Your task to perform on an android device: refresh tabs in the chrome app Image 0: 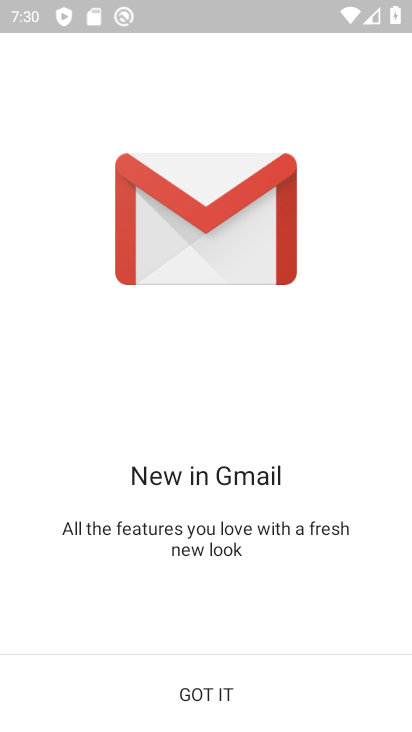
Step 0: click (233, 691)
Your task to perform on an android device: refresh tabs in the chrome app Image 1: 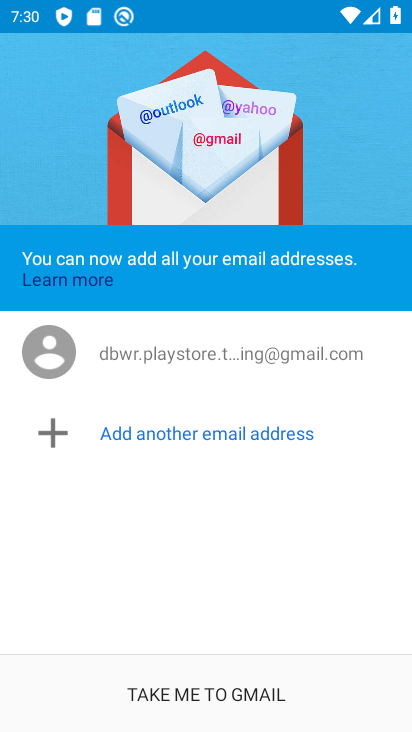
Step 1: press home button
Your task to perform on an android device: refresh tabs in the chrome app Image 2: 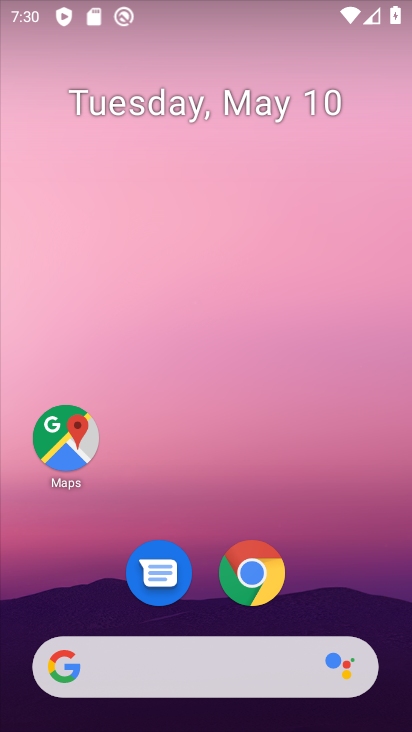
Step 2: drag from (377, 597) to (336, 153)
Your task to perform on an android device: refresh tabs in the chrome app Image 3: 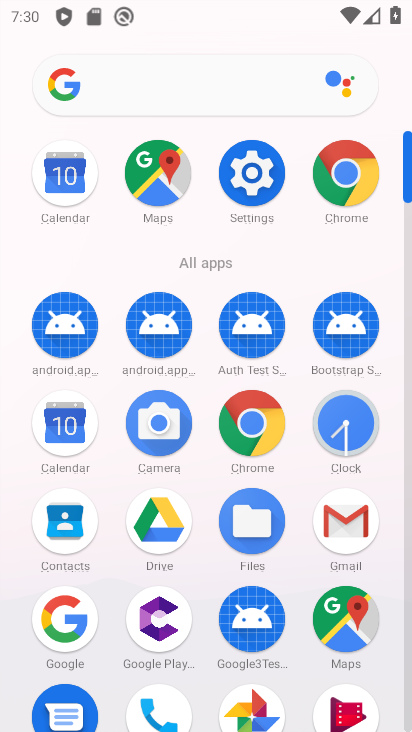
Step 3: click (248, 430)
Your task to perform on an android device: refresh tabs in the chrome app Image 4: 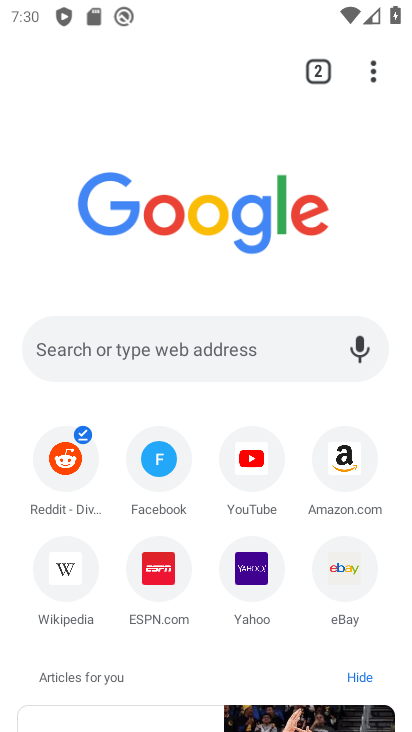
Step 4: click (378, 73)
Your task to perform on an android device: refresh tabs in the chrome app Image 5: 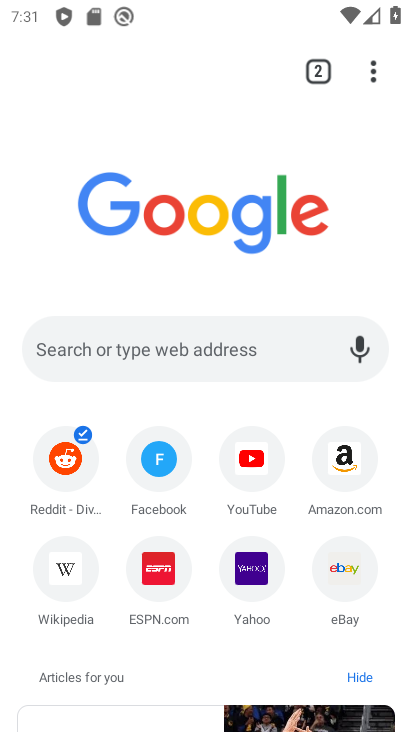
Step 5: task complete